Your task to perform on an android device: Search for pizza restaurants on Maps Image 0: 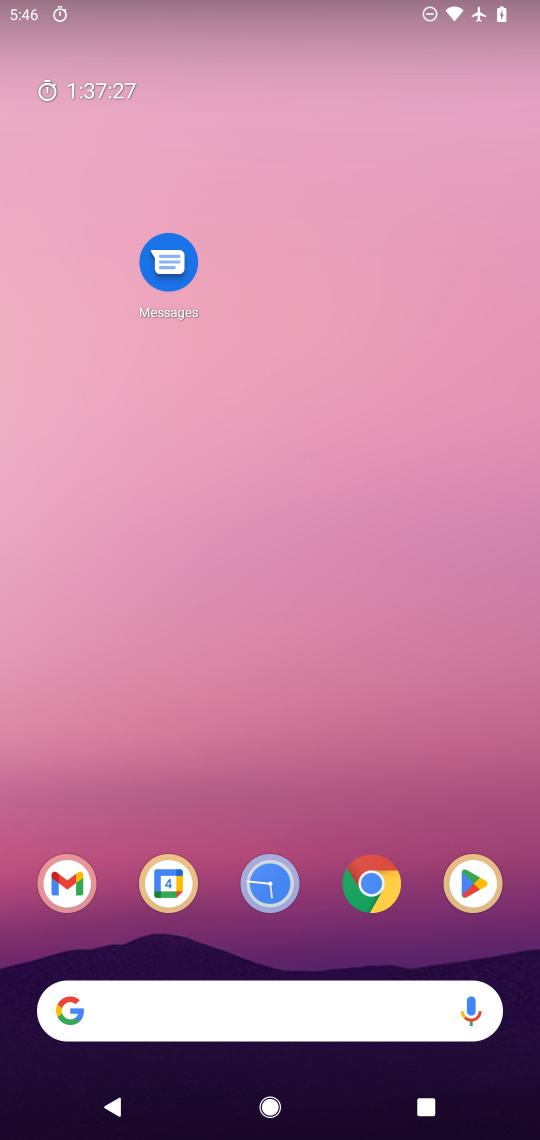
Step 0: drag from (310, 882) to (311, 19)
Your task to perform on an android device: Search for pizza restaurants on Maps Image 1: 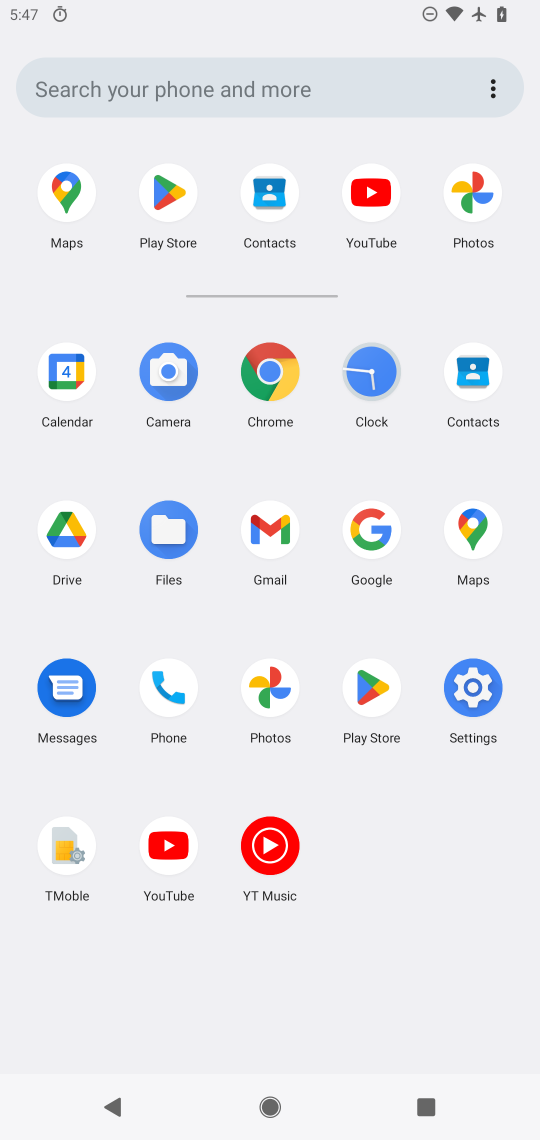
Step 1: click (479, 526)
Your task to perform on an android device: Search for pizza restaurants on Maps Image 2: 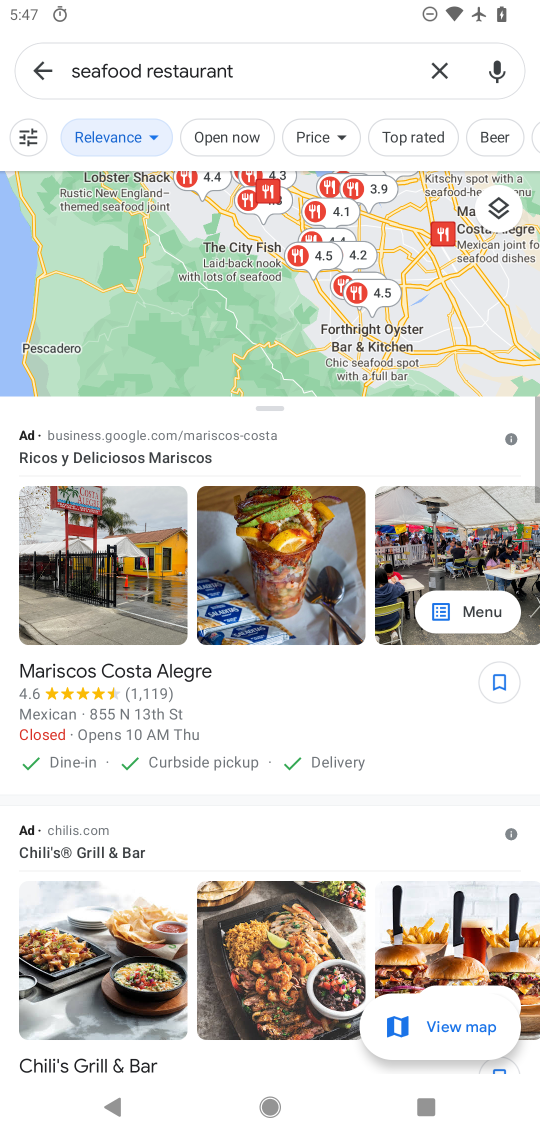
Step 2: click (440, 62)
Your task to perform on an android device: Search for pizza restaurants on Maps Image 3: 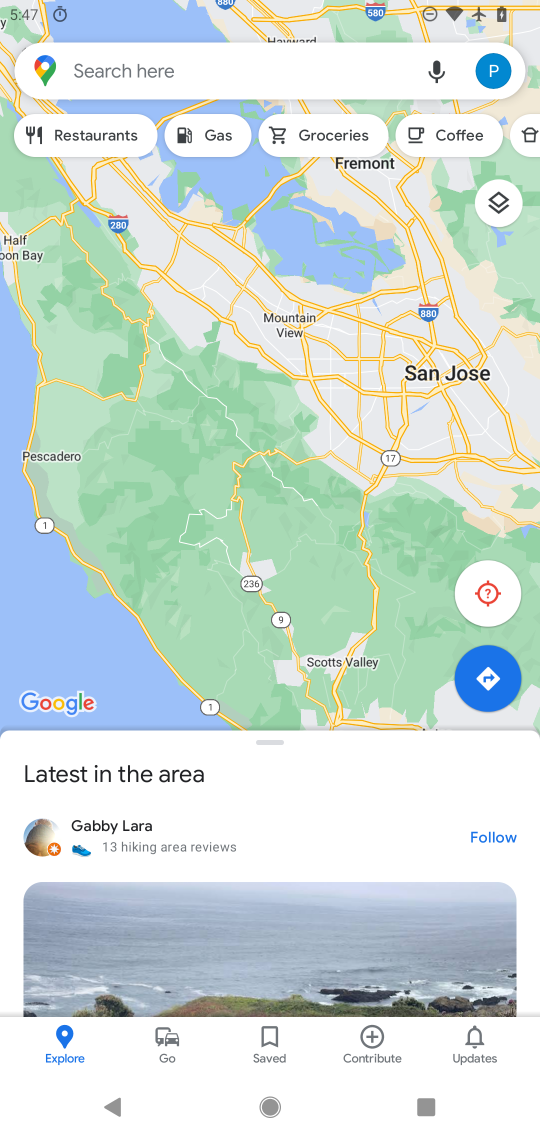
Step 3: click (230, 75)
Your task to perform on an android device: Search for pizza restaurants on Maps Image 4: 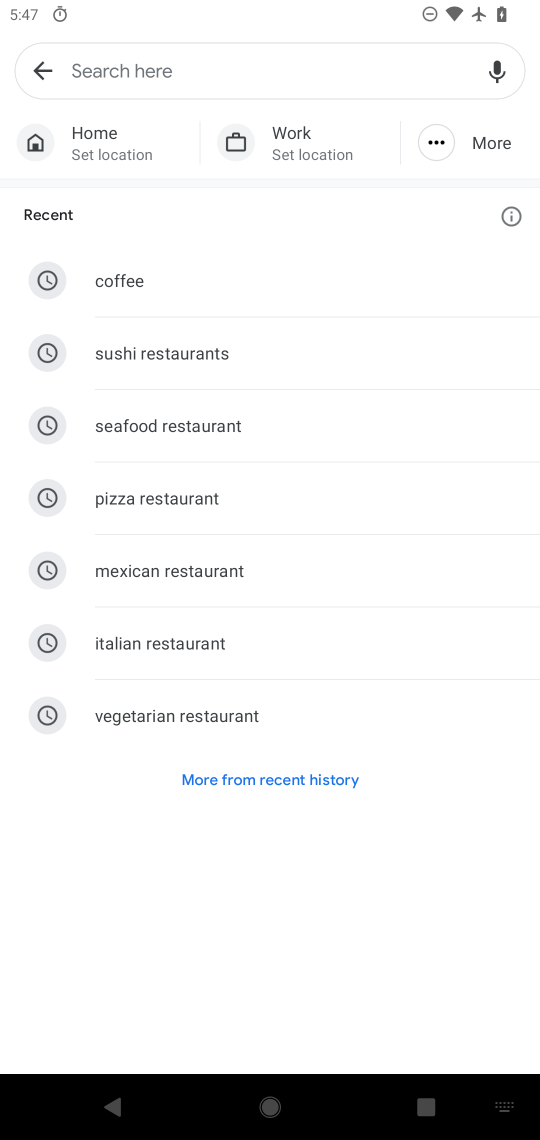
Step 4: type "pizza restaurants"
Your task to perform on an android device: Search for pizza restaurants on Maps Image 5: 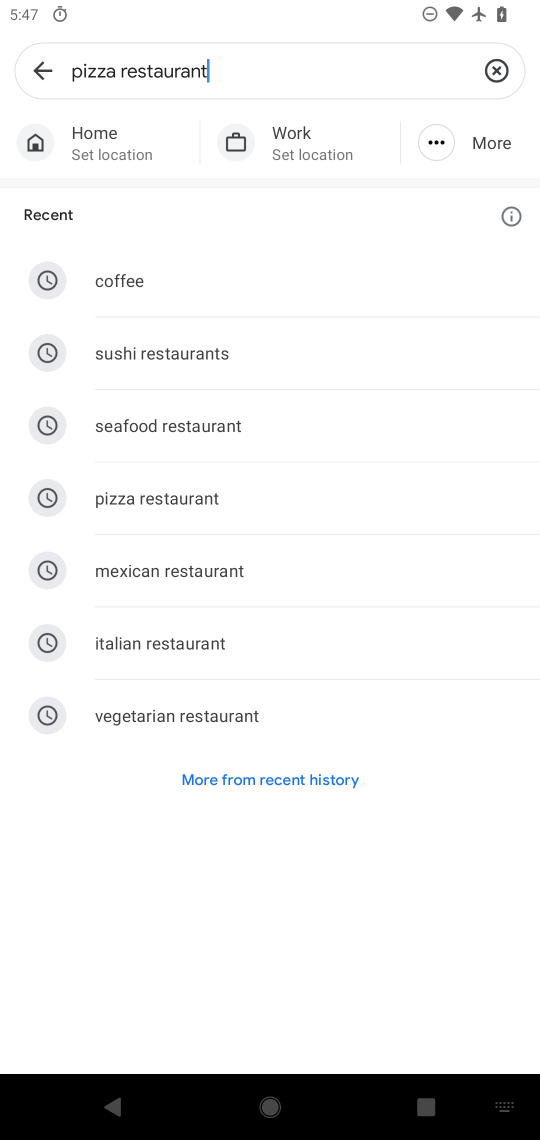
Step 5: type ""
Your task to perform on an android device: Search for pizza restaurants on Maps Image 6: 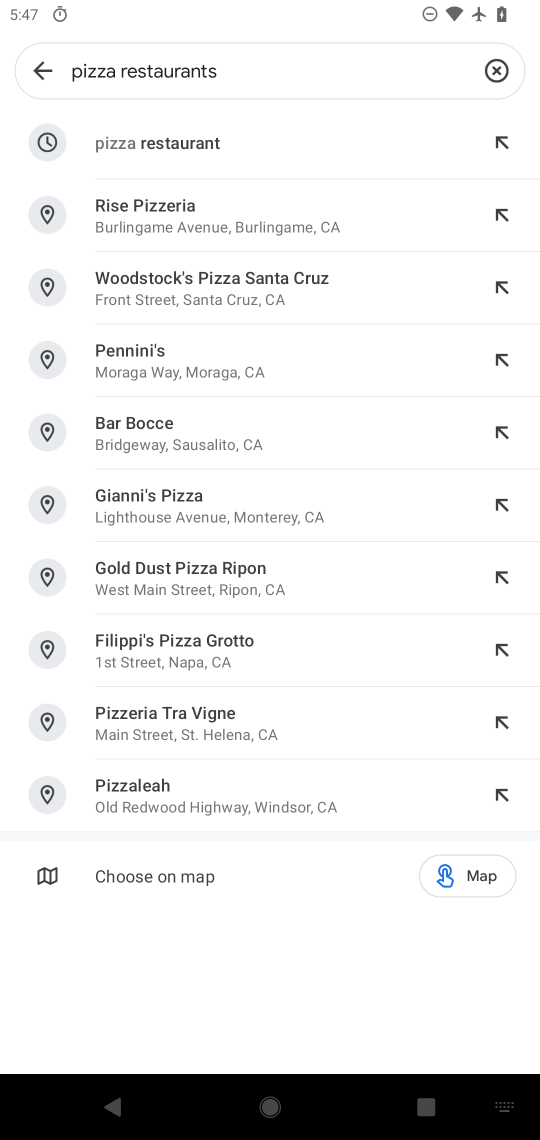
Step 6: click (173, 143)
Your task to perform on an android device: Search for pizza restaurants on Maps Image 7: 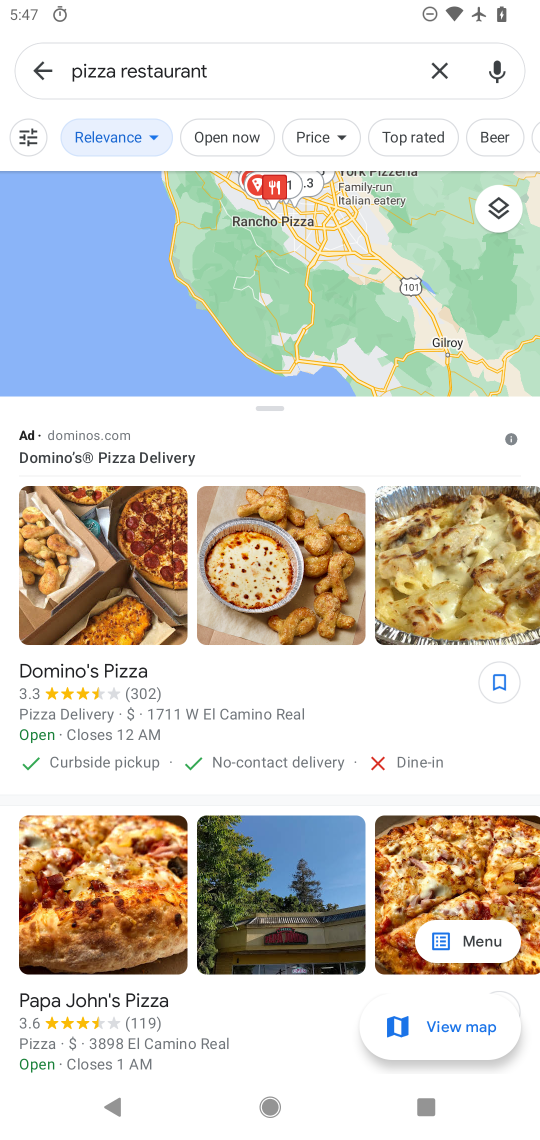
Step 7: task complete